Your task to perform on an android device: open app "Microsoft Outlook" (install if not already installed) and enter user name: "brand@gmail.com" and password: "persuasiveness" Image 0: 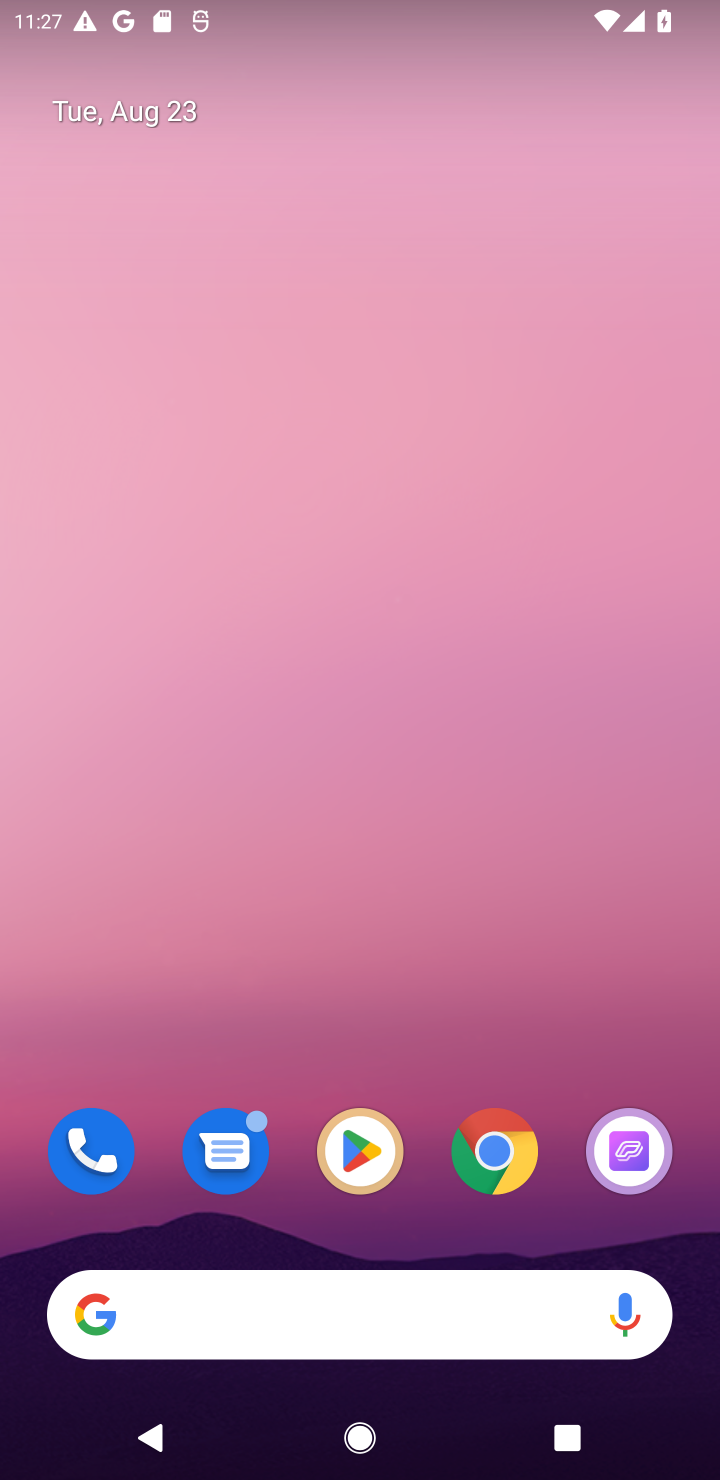
Step 0: click (378, 1121)
Your task to perform on an android device: open app "Microsoft Outlook" (install if not already installed) and enter user name: "brand@gmail.com" and password: "persuasiveness" Image 1: 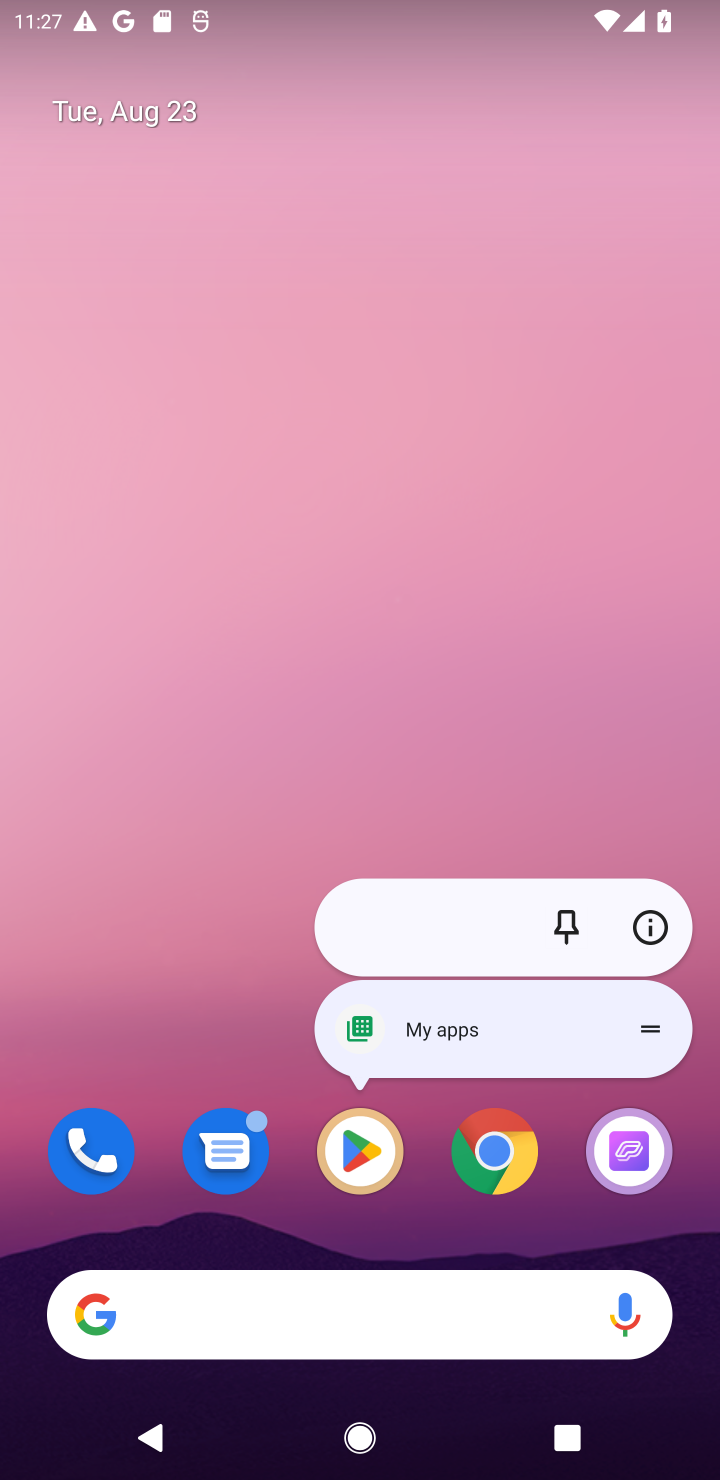
Step 1: click (334, 1160)
Your task to perform on an android device: open app "Microsoft Outlook" (install if not already installed) and enter user name: "brand@gmail.com" and password: "persuasiveness" Image 2: 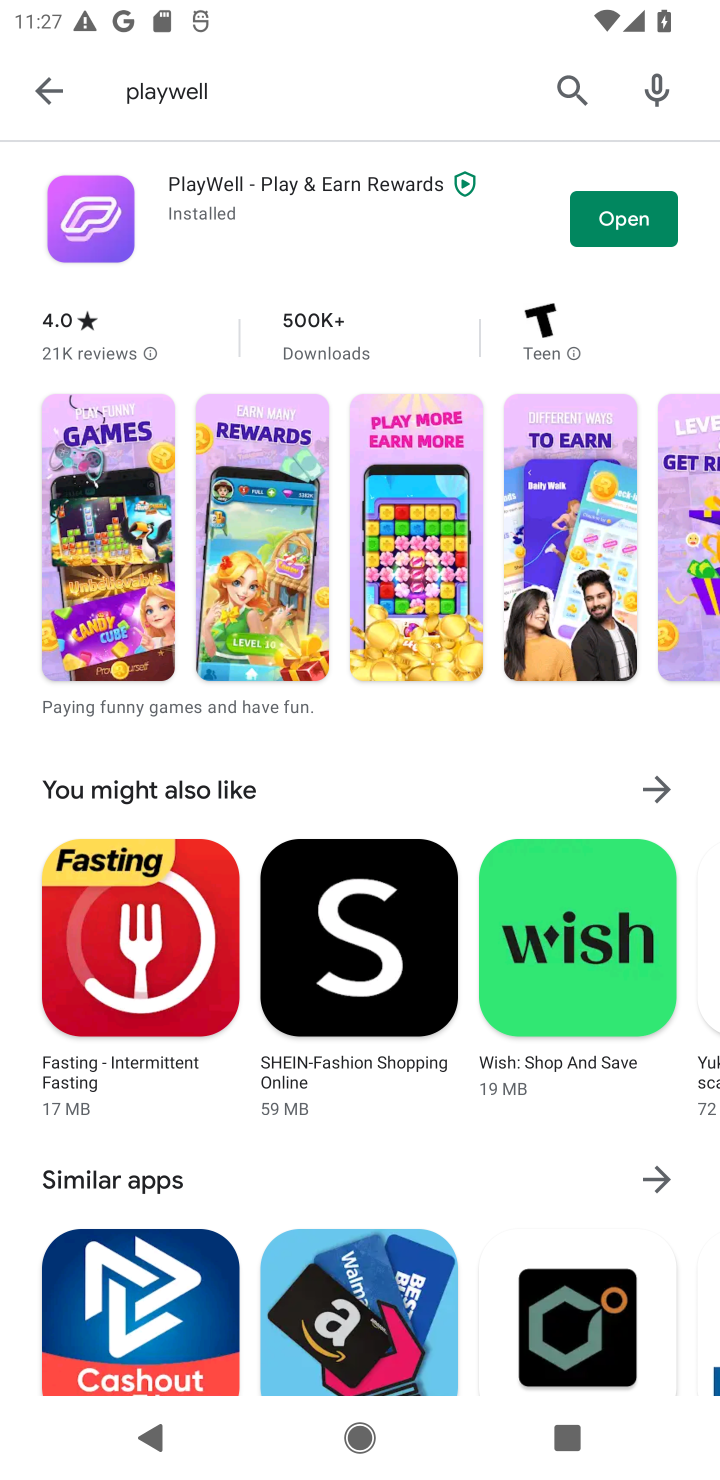
Step 2: click (578, 105)
Your task to perform on an android device: open app "Microsoft Outlook" (install if not already installed) and enter user name: "brand@gmail.com" and password: "persuasiveness" Image 3: 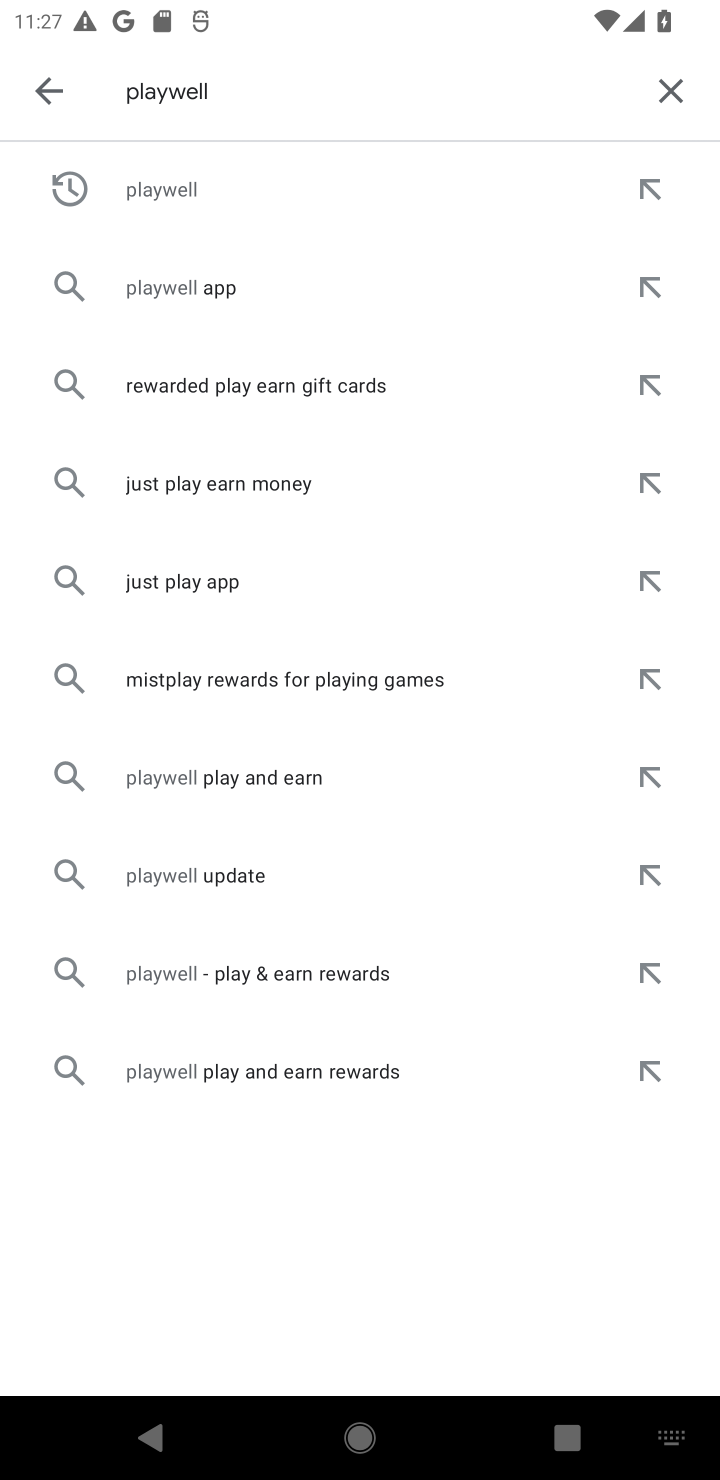
Step 3: click (667, 74)
Your task to perform on an android device: open app "Microsoft Outlook" (install if not already installed) and enter user name: "brand@gmail.com" and password: "persuasiveness" Image 4: 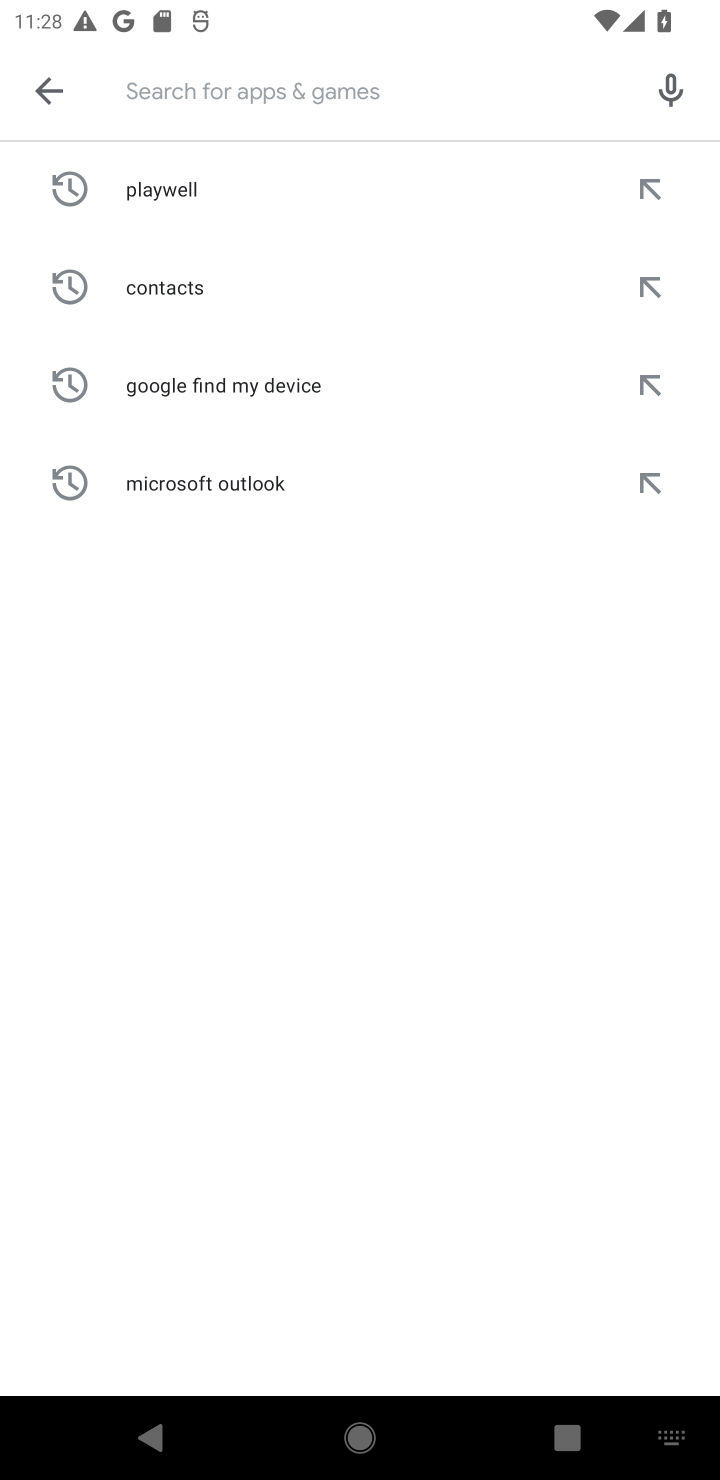
Step 4: click (166, 176)
Your task to perform on an android device: open app "Microsoft Outlook" (install if not already installed) and enter user name: "brand@gmail.com" and password: "persuasiveness" Image 5: 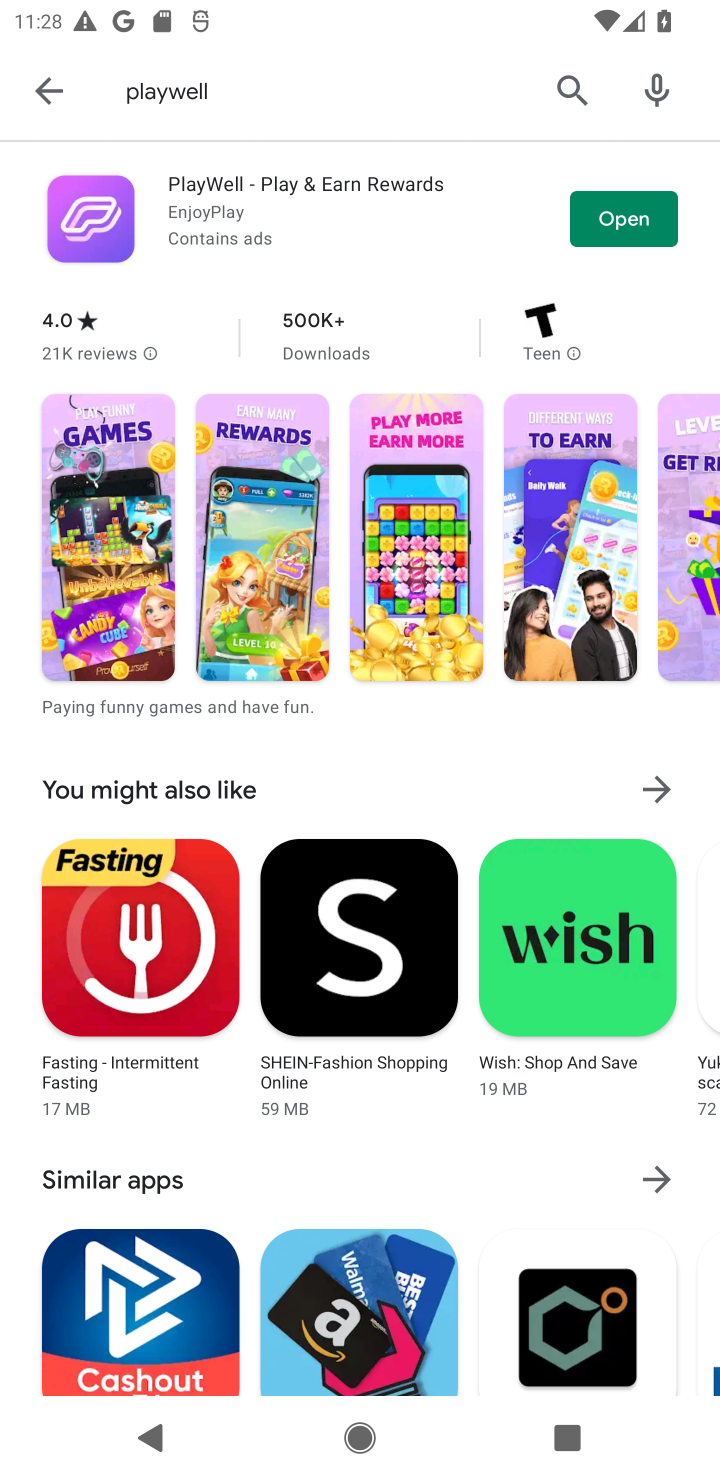
Step 5: click (570, 77)
Your task to perform on an android device: open app "Microsoft Outlook" (install if not already installed) and enter user name: "brand@gmail.com" and password: "persuasiveness" Image 6: 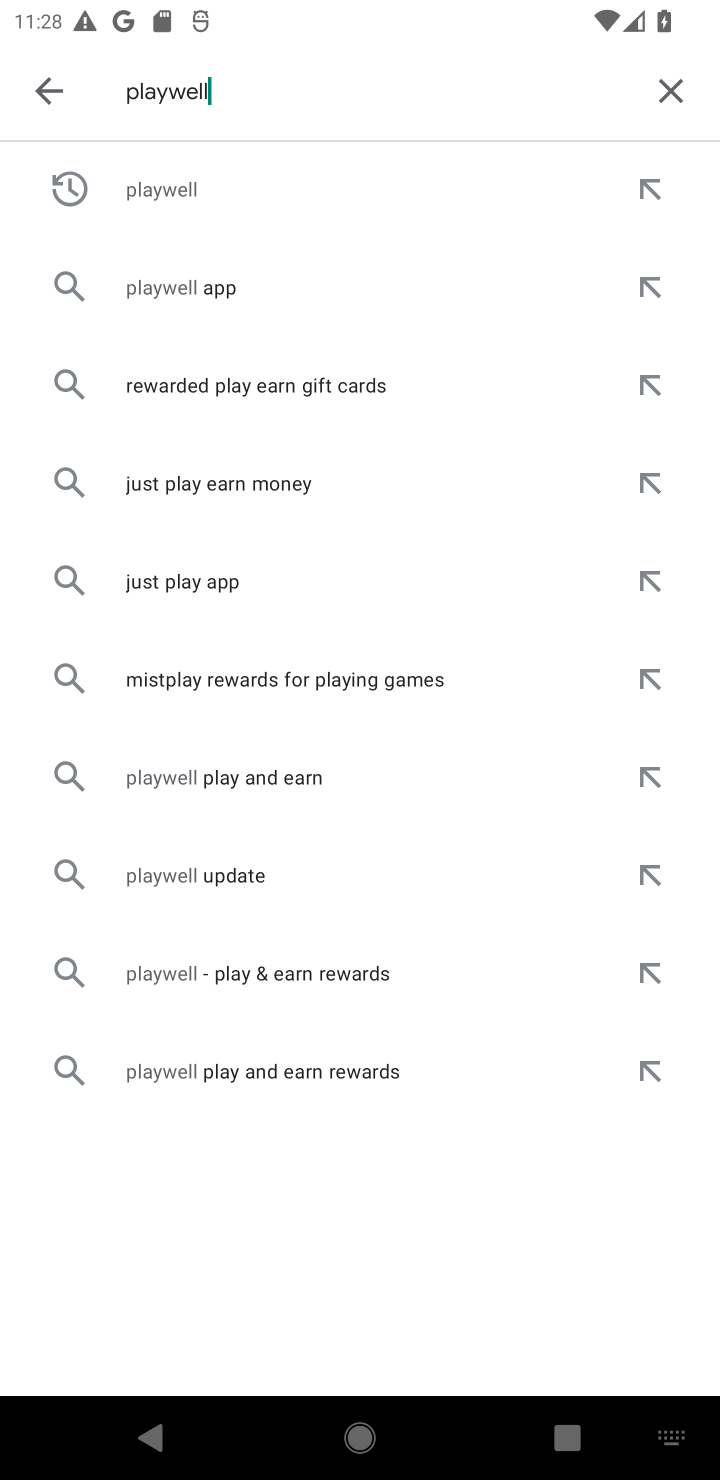
Step 6: click (656, 105)
Your task to perform on an android device: open app "Microsoft Outlook" (install if not already installed) and enter user name: "brand@gmail.com" and password: "persuasiveness" Image 7: 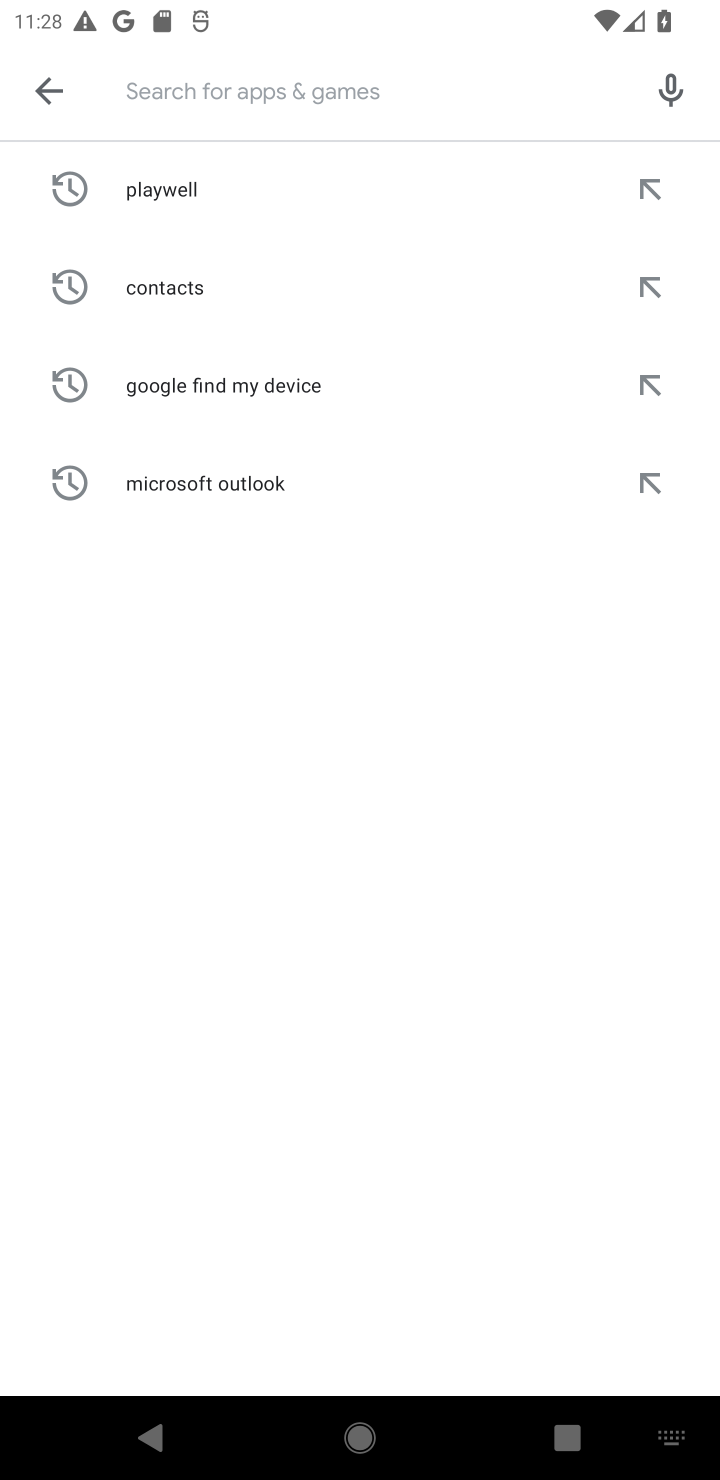
Step 7: type "Microsoft Outlook"
Your task to perform on an android device: open app "Microsoft Outlook" (install if not already installed) and enter user name: "brand@gmail.com" and password: "persuasiveness" Image 8: 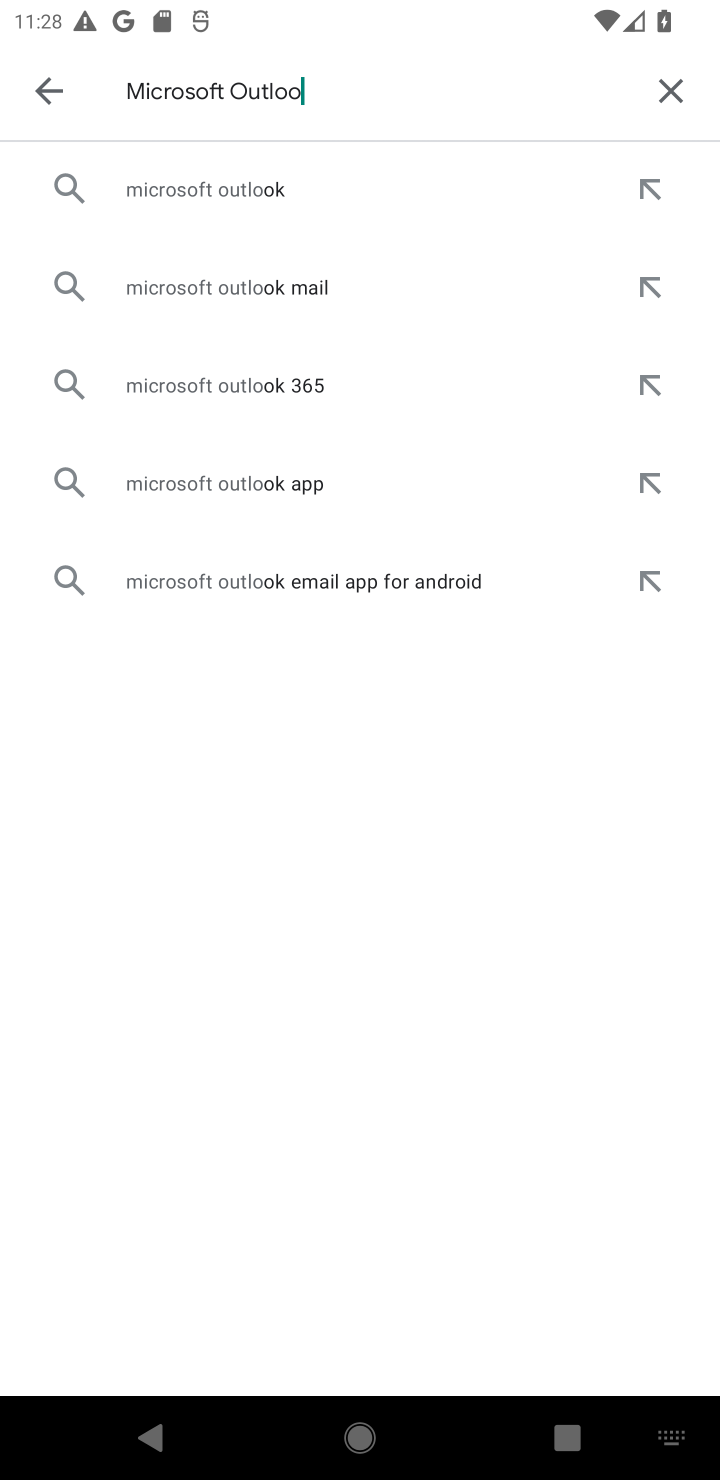
Step 8: type ""
Your task to perform on an android device: open app "Microsoft Outlook" (install if not already installed) and enter user name: "brand@gmail.com" and password: "persuasiveness" Image 9: 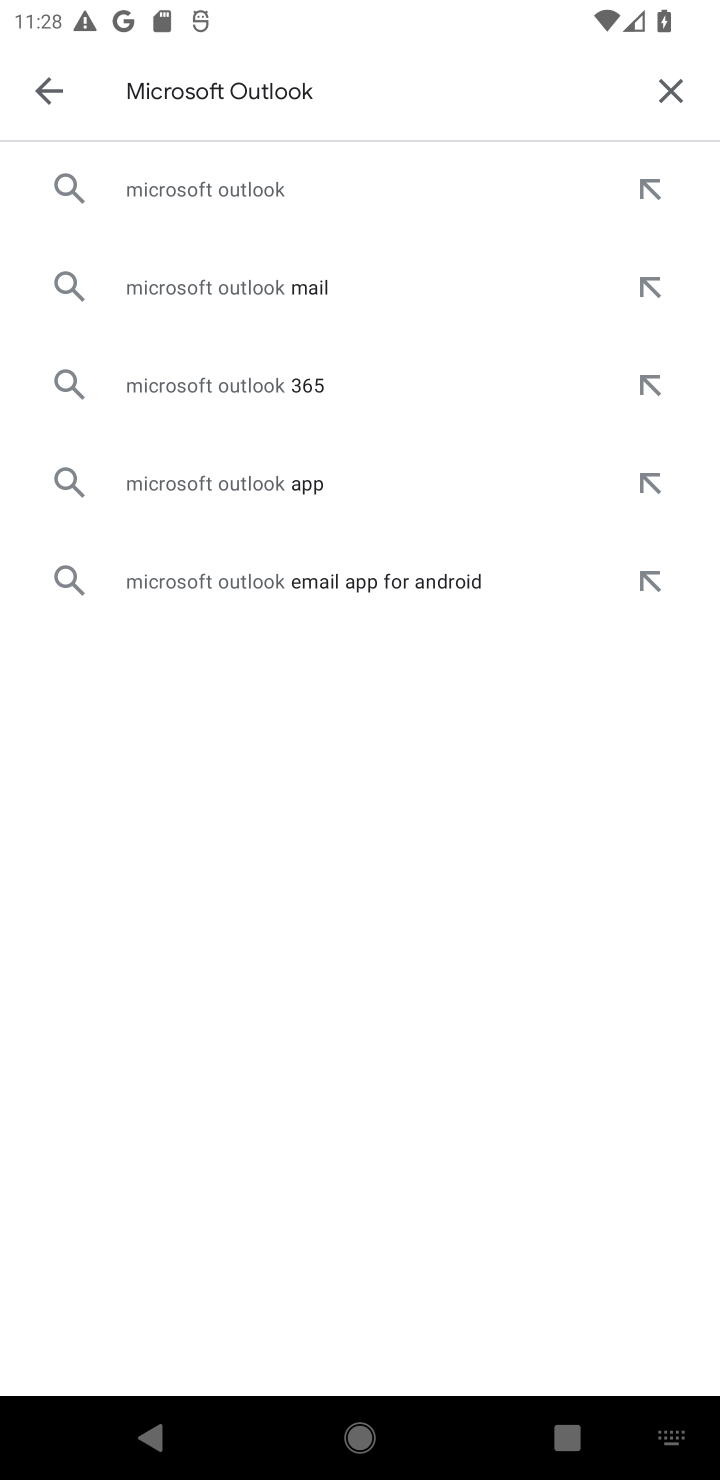
Step 9: click (168, 191)
Your task to perform on an android device: open app "Microsoft Outlook" (install if not already installed) and enter user name: "brand@gmail.com" and password: "persuasiveness" Image 10: 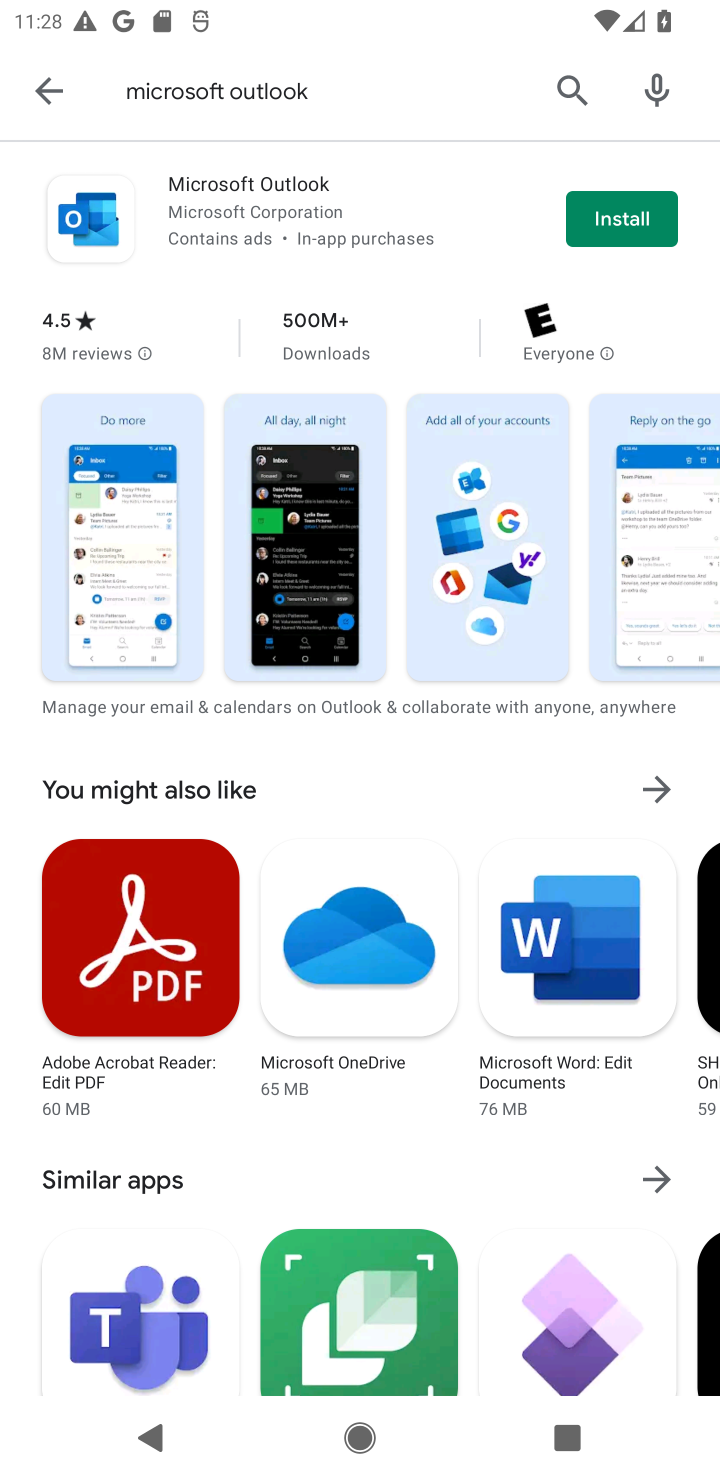
Step 10: click (605, 235)
Your task to perform on an android device: open app "Microsoft Outlook" (install if not already installed) and enter user name: "brand@gmail.com" and password: "persuasiveness" Image 11: 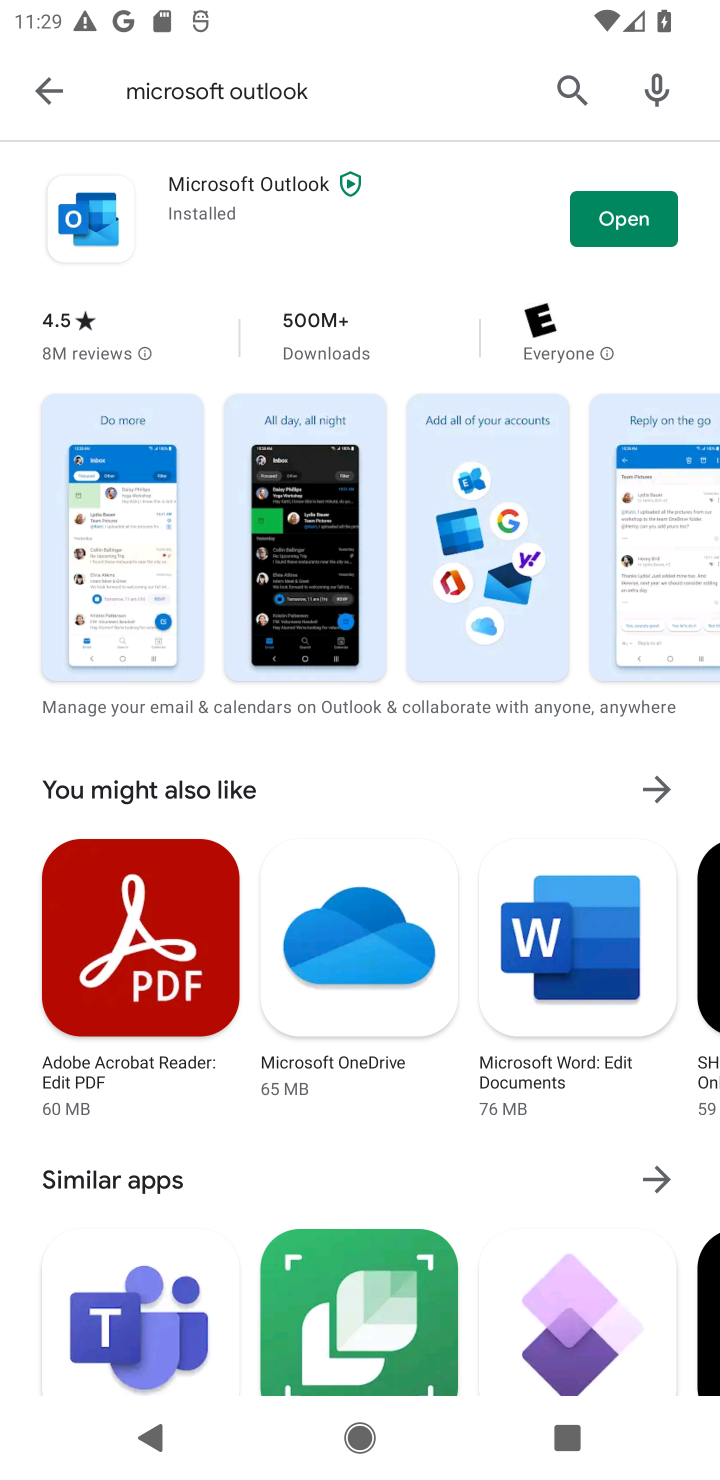
Step 11: click (614, 230)
Your task to perform on an android device: open app "Microsoft Outlook" (install if not already installed) and enter user name: "brand@gmail.com" and password: "persuasiveness" Image 12: 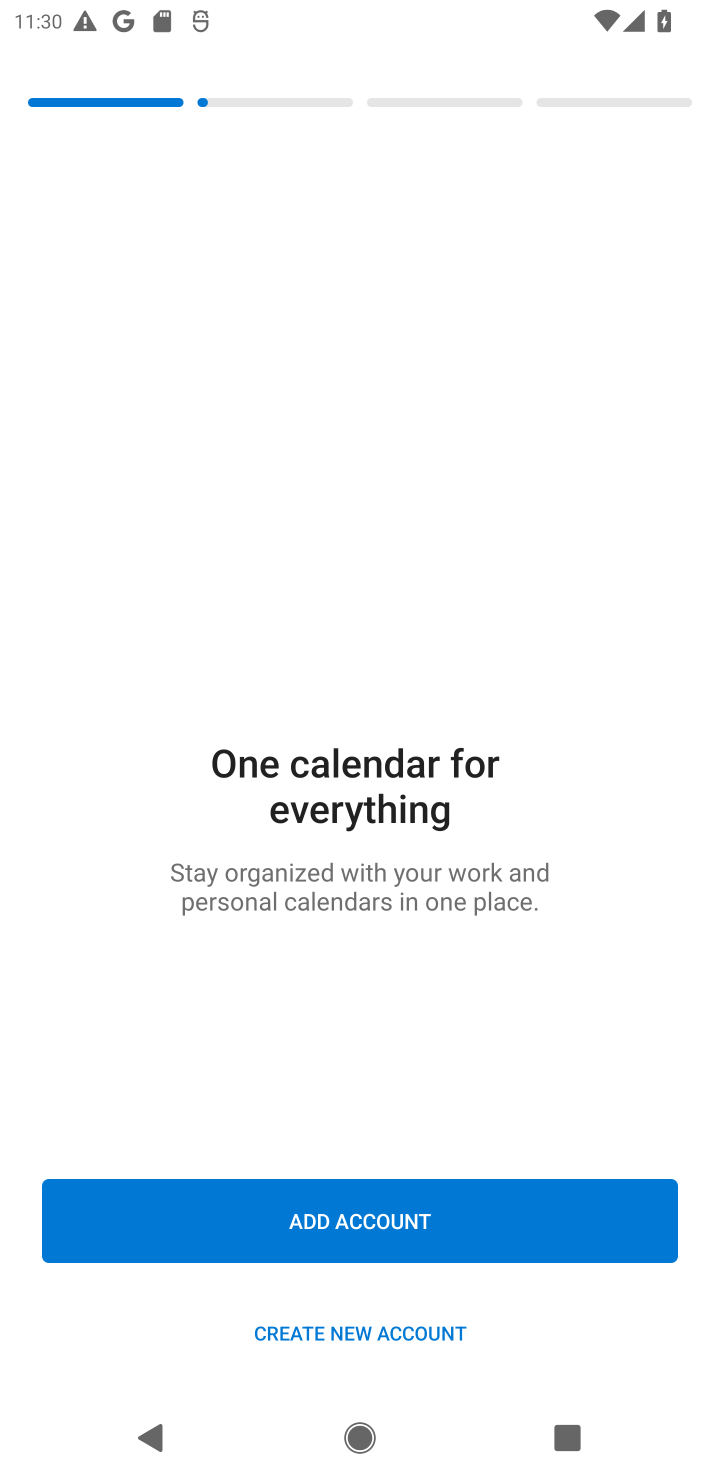
Step 12: task complete